Your task to perform on an android device: turn notification dots off Image 0: 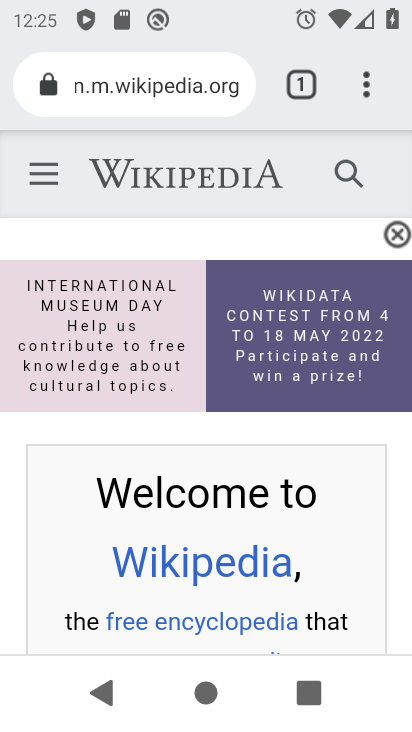
Step 0: press home button
Your task to perform on an android device: turn notification dots off Image 1: 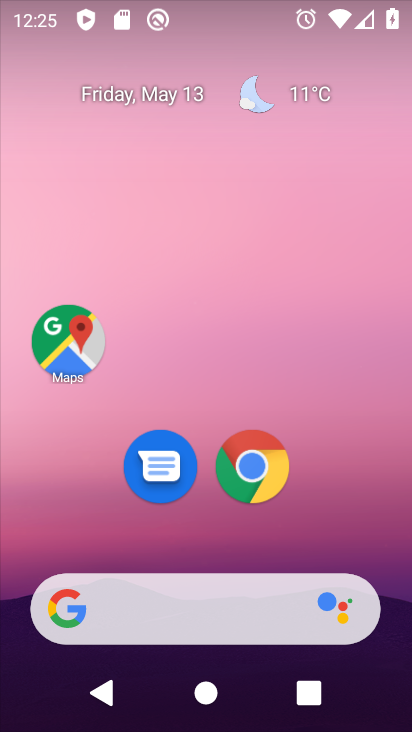
Step 1: drag from (316, 556) to (231, 136)
Your task to perform on an android device: turn notification dots off Image 2: 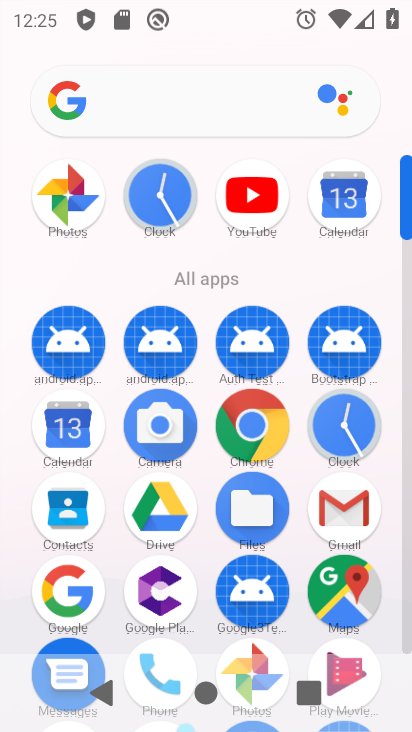
Step 2: drag from (229, 271) to (168, 30)
Your task to perform on an android device: turn notification dots off Image 3: 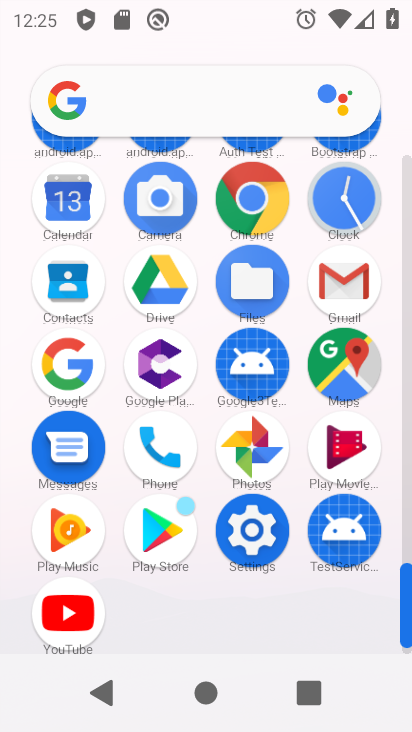
Step 3: click (258, 520)
Your task to perform on an android device: turn notification dots off Image 4: 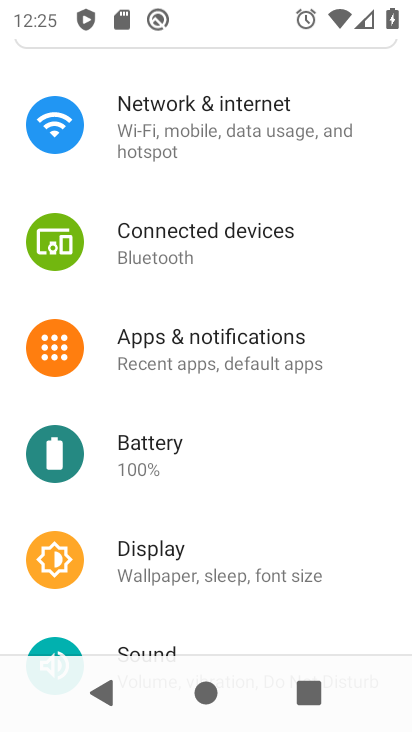
Step 4: click (226, 354)
Your task to perform on an android device: turn notification dots off Image 5: 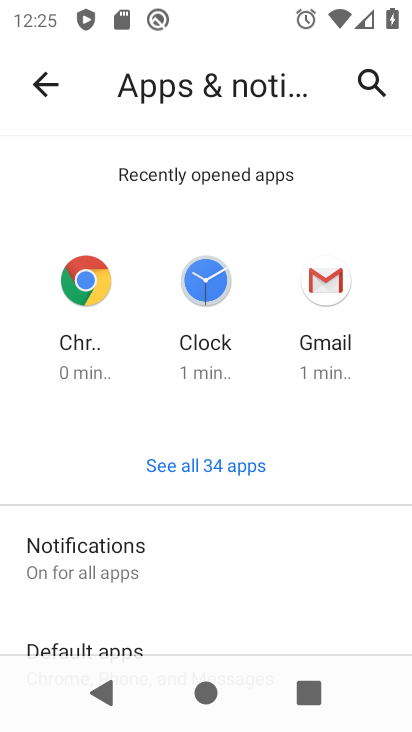
Step 5: drag from (293, 560) to (236, 352)
Your task to perform on an android device: turn notification dots off Image 6: 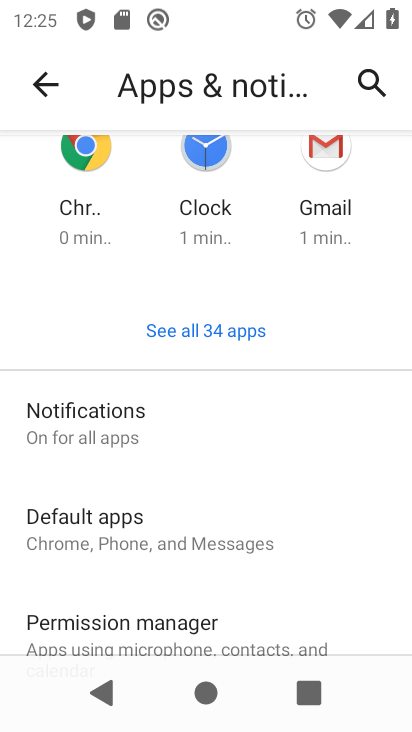
Step 6: click (157, 414)
Your task to perform on an android device: turn notification dots off Image 7: 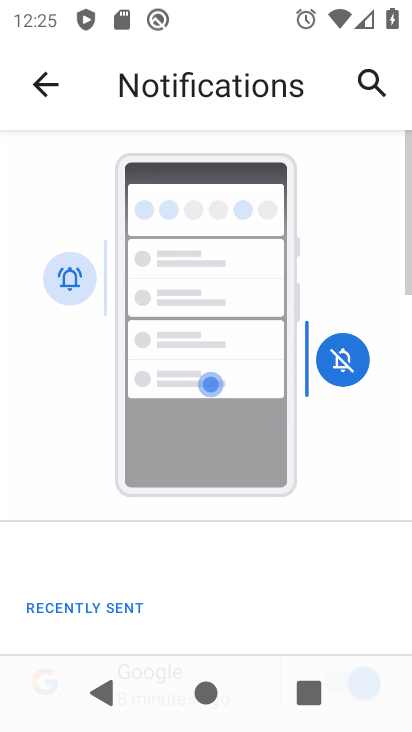
Step 7: drag from (316, 578) to (255, 256)
Your task to perform on an android device: turn notification dots off Image 8: 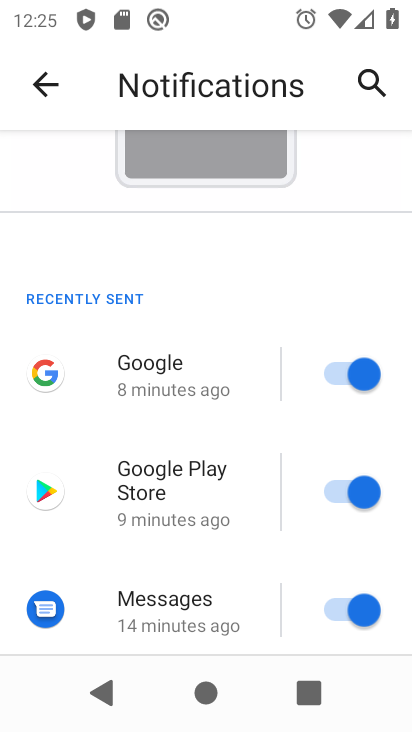
Step 8: drag from (284, 542) to (224, 257)
Your task to perform on an android device: turn notification dots off Image 9: 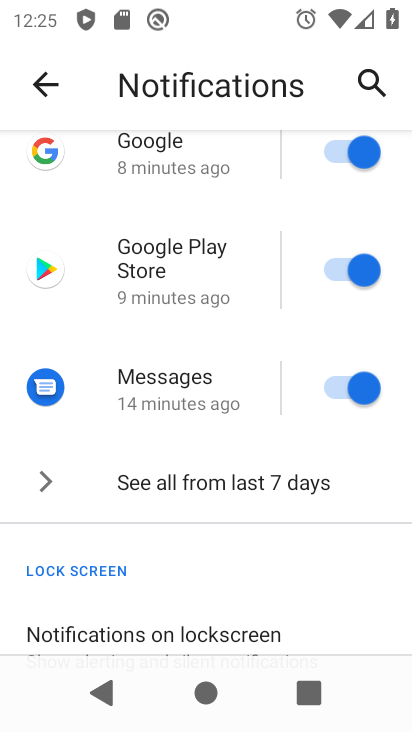
Step 9: drag from (275, 538) to (230, 306)
Your task to perform on an android device: turn notification dots off Image 10: 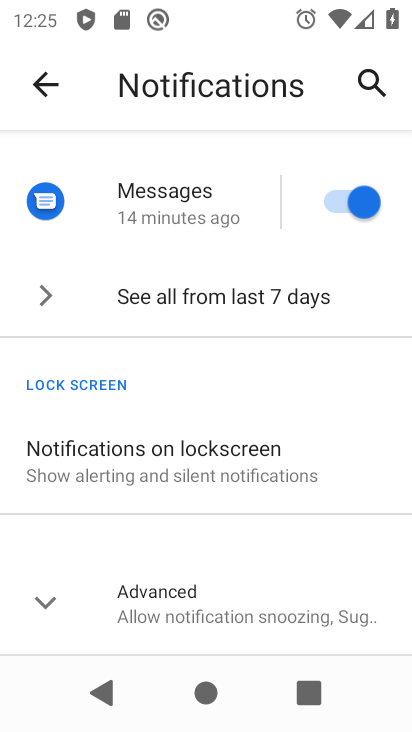
Step 10: click (264, 603)
Your task to perform on an android device: turn notification dots off Image 11: 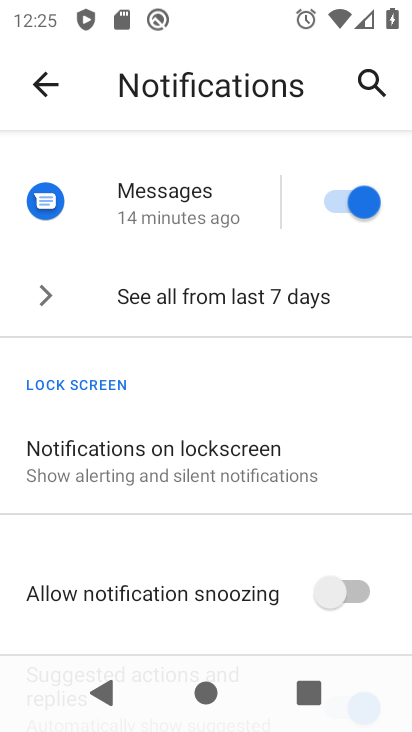
Step 11: drag from (278, 583) to (225, 179)
Your task to perform on an android device: turn notification dots off Image 12: 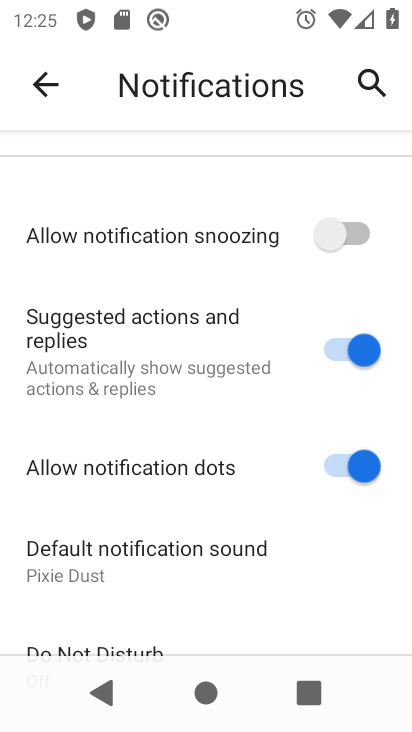
Step 12: click (342, 455)
Your task to perform on an android device: turn notification dots off Image 13: 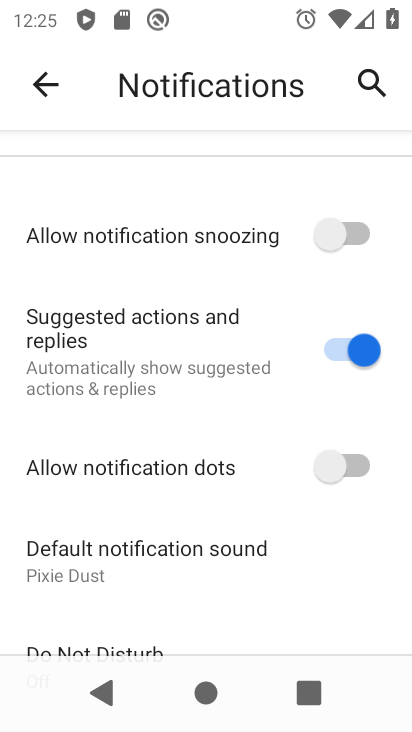
Step 13: task complete